Your task to perform on an android device: Is it going to rain tomorrow? Image 0: 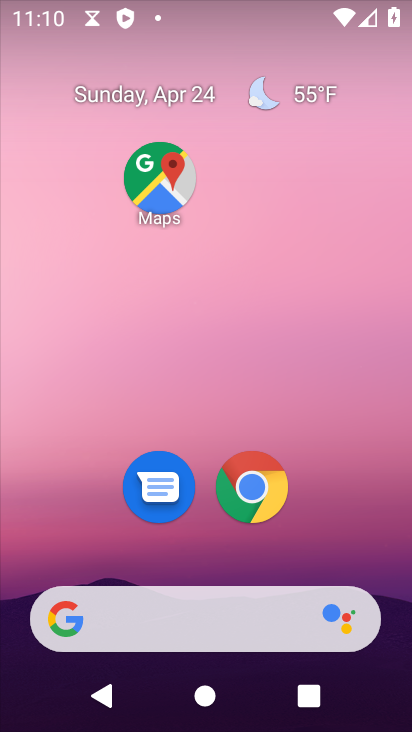
Step 0: drag from (232, 571) to (276, 230)
Your task to perform on an android device: Is it going to rain tomorrow? Image 1: 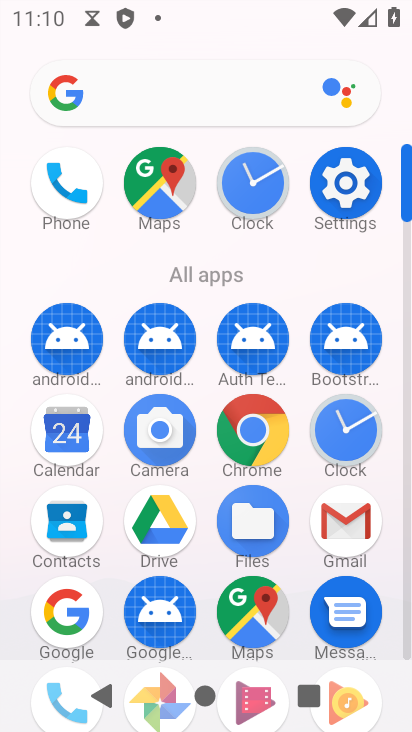
Step 1: click (47, 622)
Your task to perform on an android device: Is it going to rain tomorrow? Image 2: 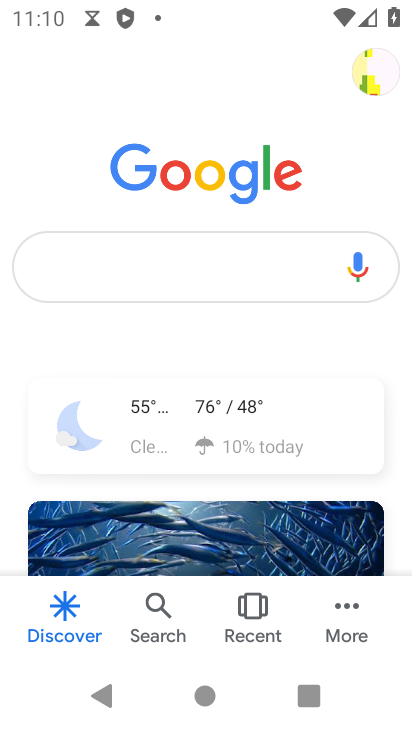
Step 2: click (250, 417)
Your task to perform on an android device: Is it going to rain tomorrow? Image 3: 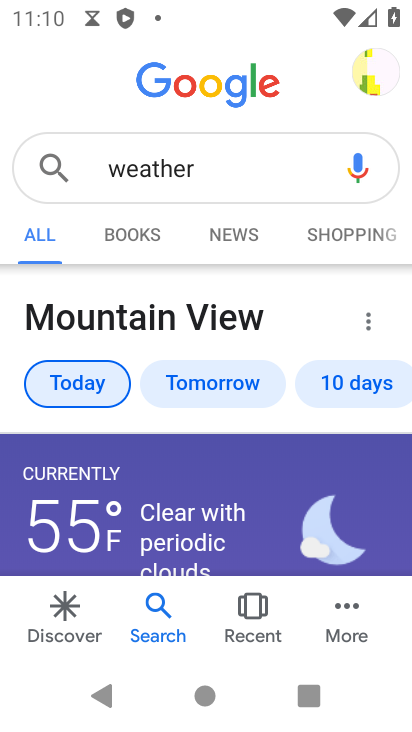
Step 3: drag from (225, 494) to (272, 269)
Your task to perform on an android device: Is it going to rain tomorrow? Image 4: 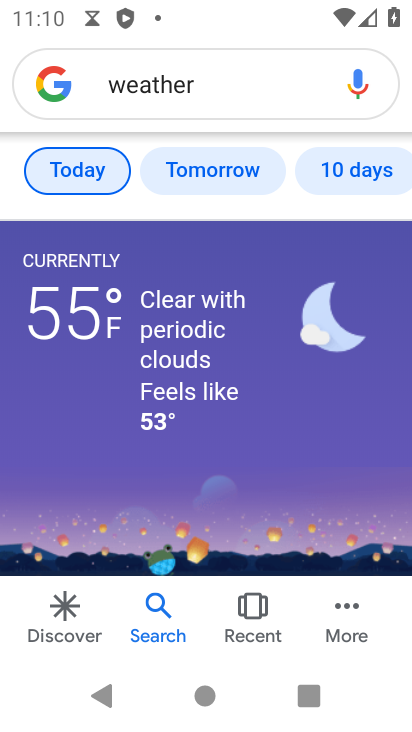
Step 4: click (202, 510)
Your task to perform on an android device: Is it going to rain tomorrow? Image 5: 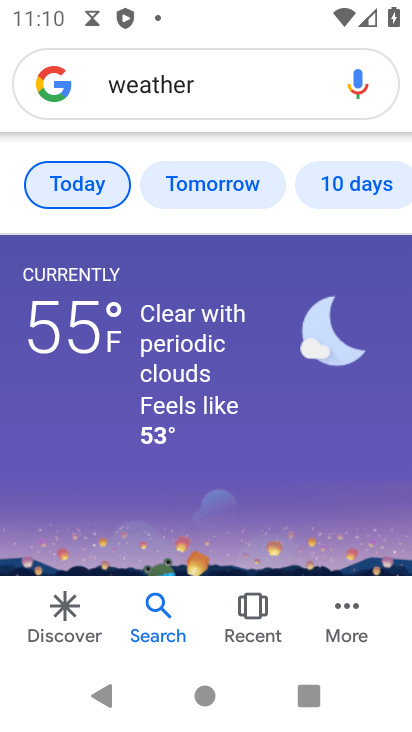
Step 5: click (227, 186)
Your task to perform on an android device: Is it going to rain tomorrow? Image 6: 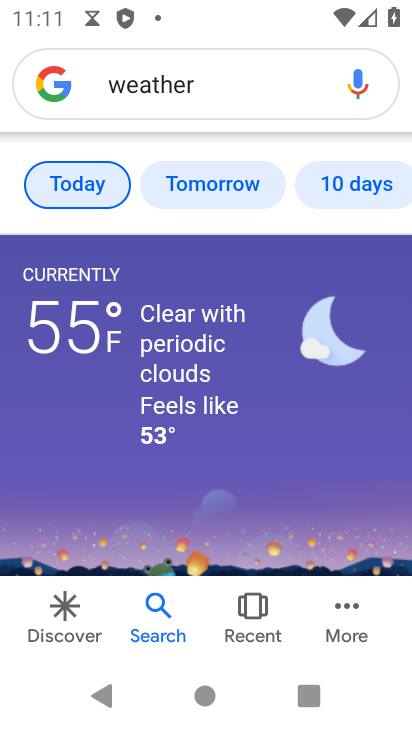
Step 6: click (216, 188)
Your task to perform on an android device: Is it going to rain tomorrow? Image 7: 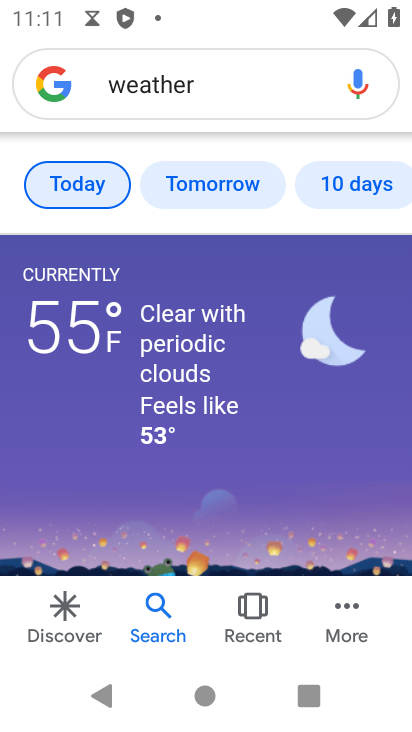
Step 7: click (191, 173)
Your task to perform on an android device: Is it going to rain tomorrow? Image 8: 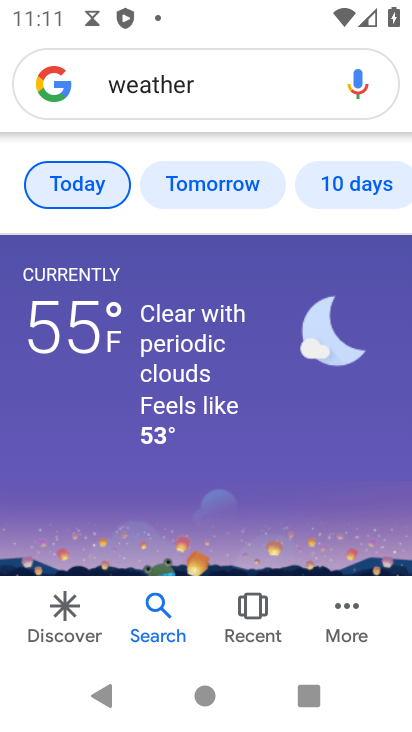
Step 8: task complete